Your task to perform on an android device: open app "Paramount+ | Peak Streaming" Image 0: 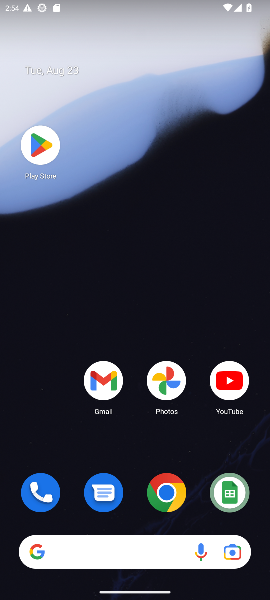
Step 0: click (28, 141)
Your task to perform on an android device: open app "Paramount+ | Peak Streaming" Image 1: 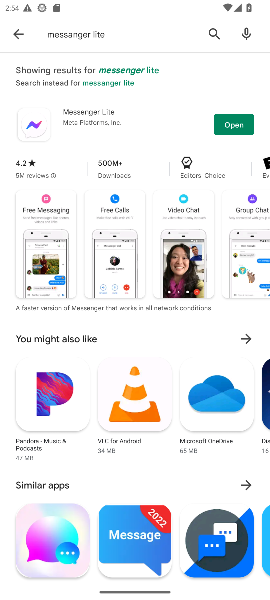
Step 1: click (208, 40)
Your task to perform on an android device: open app "Paramount+ | Peak Streaming" Image 2: 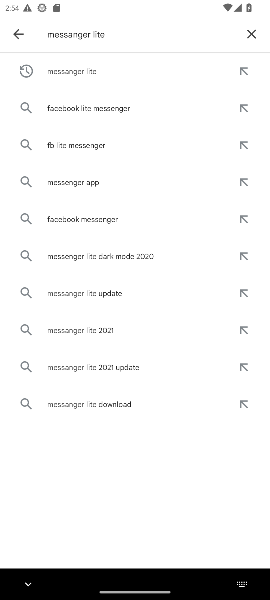
Step 2: click (245, 37)
Your task to perform on an android device: open app "Paramount+ | Peak Streaming" Image 3: 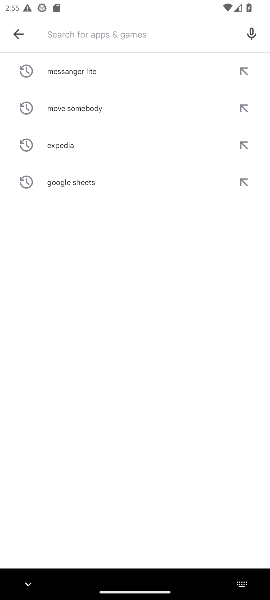
Step 3: type "paramout"
Your task to perform on an android device: open app "Paramount+ | Peak Streaming" Image 4: 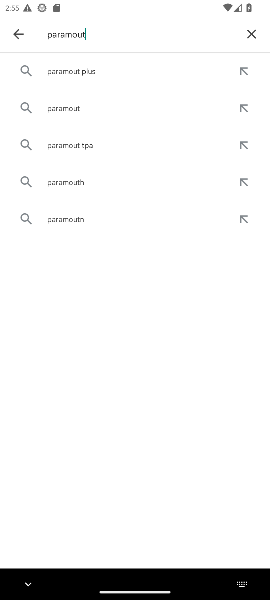
Step 4: click (143, 60)
Your task to perform on an android device: open app "Paramount+ | Peak Streaming" Image 5: 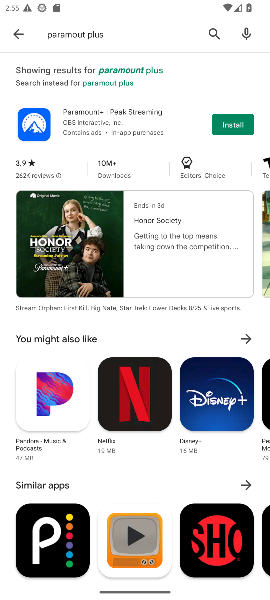
Step 5: click (230, 116)
Your task to perform on an android device: open app "Paramount+ | Peak Streaming" Image 6: 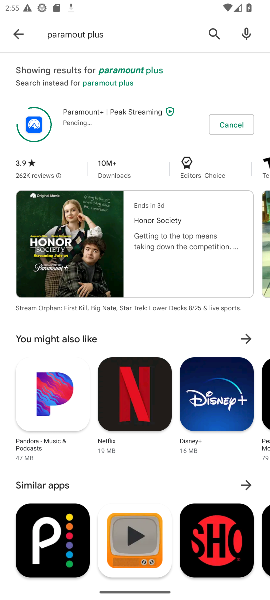
Step 6: task complete